Your task to perform on an android device: open the mobile data screen to see how much data has been used Image 0: 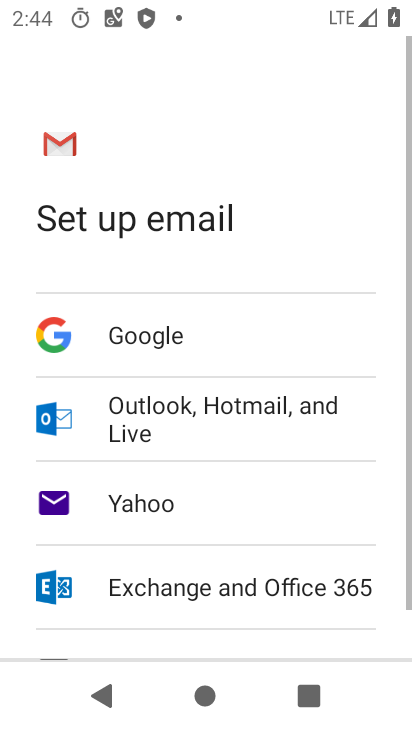
Step 0: press home button
Your task to perform on an android device: open the mobile data screen to see how much data has been used Image 1: 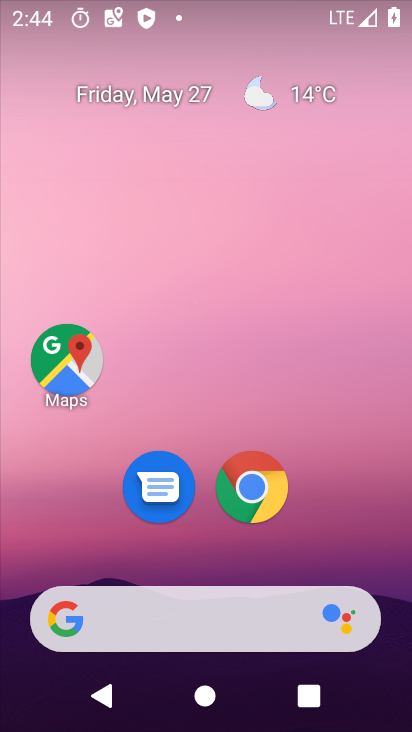
Step 1: drag from (380, 541) to (357, 175)
Your task to perform on an android device: open the mobile data screen to see how much data has been used Image 2: 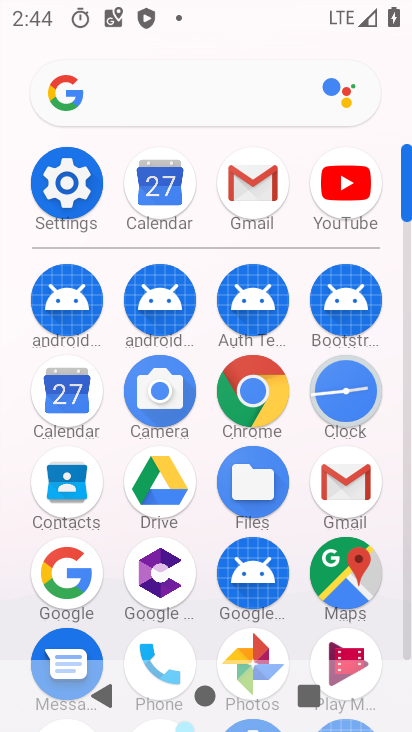
Step 2: click (71, 182)
Your task to perform on an android device: open the mobile data screen to see how much data has been used Image 3: 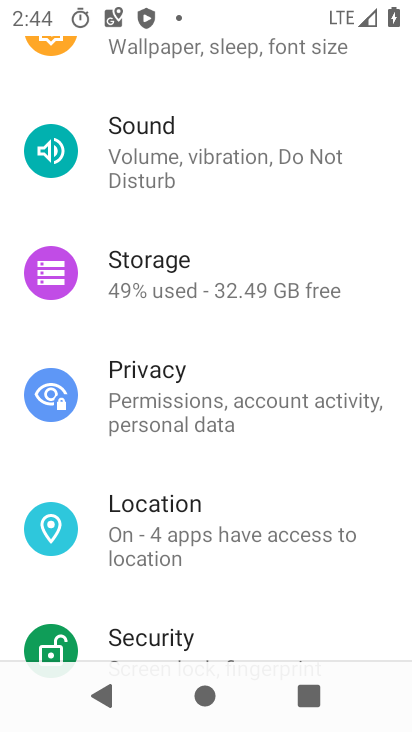
Step 3: drag from (196, 83) to (252, 589)
Your task to perform on an android device: open the mobile data screen to see how much data has been used Image 4: 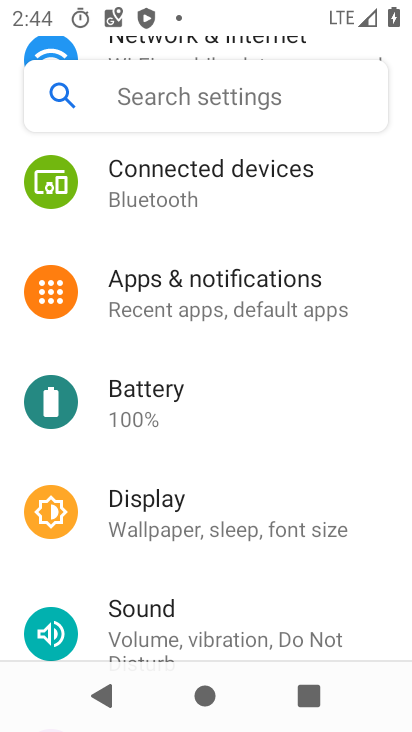
Step 4: drag from (247, 270) to (250, 623)
Your task to perform on an android device: open the mobile data screen to see how much data has been used Image 5: 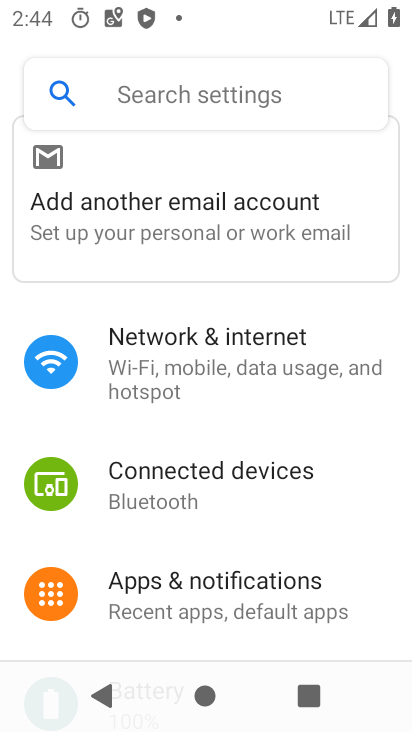
Step 5: click (173, 351)
Your task to perform on an android device: open the mobile data screen to see how much data has been used Image 6: 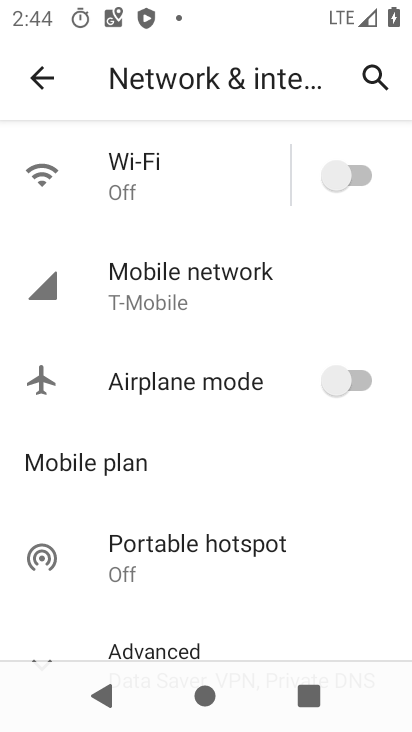
Step 6: click (171, 310)
Your task to perform on an android device: open the mobile data screen to see how much data has been used Image 7: 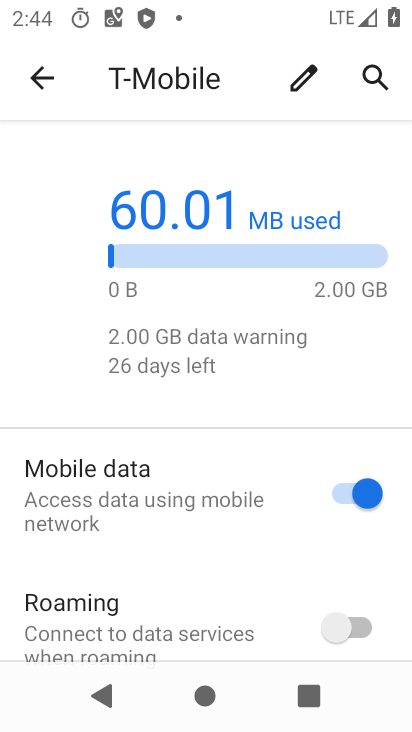
Step 7: task complete